Your task to perform on an android device: delete browsing data in the chrome app Image 0: 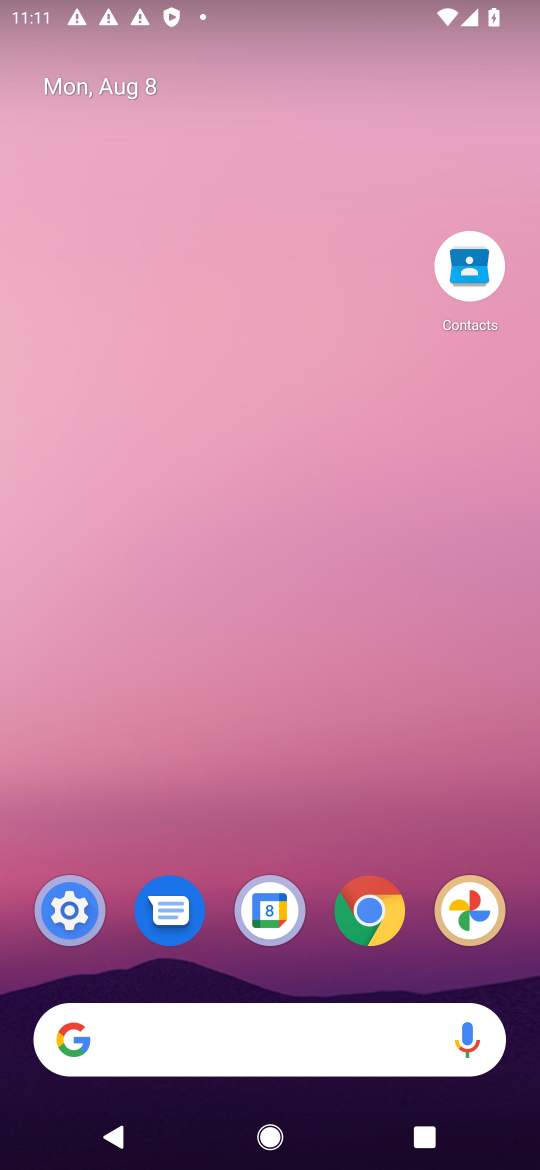
Step 0: click (373, 920)
Your task to perform on an android device: delete browsing data in the chrome app Image 1: 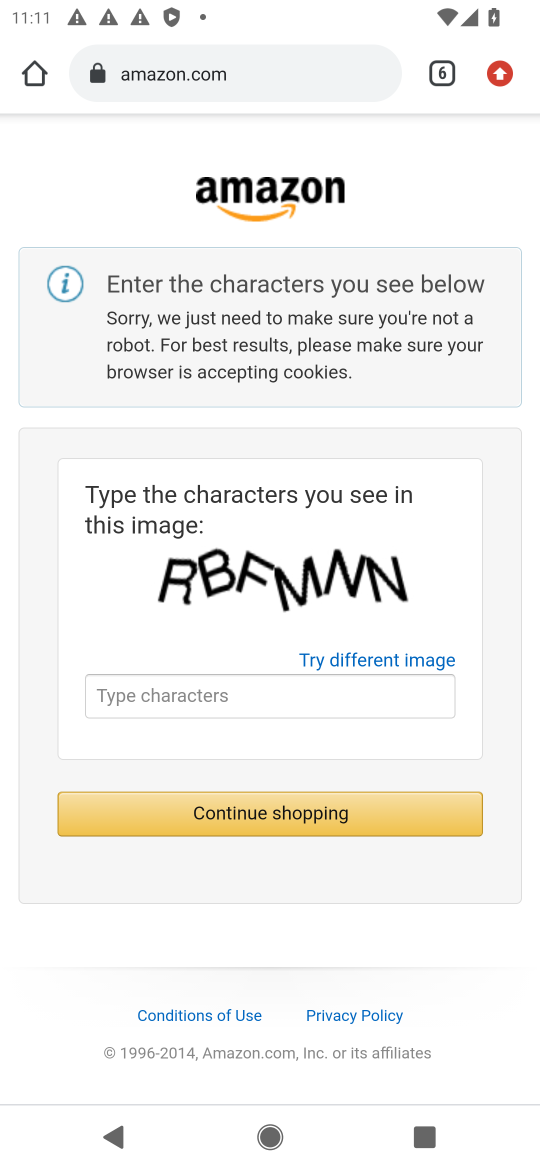
Step 1: drag from (527, 80) to (322, 967)
Your task to perform on an android device: delete browsing data in the chrome app Image 2: 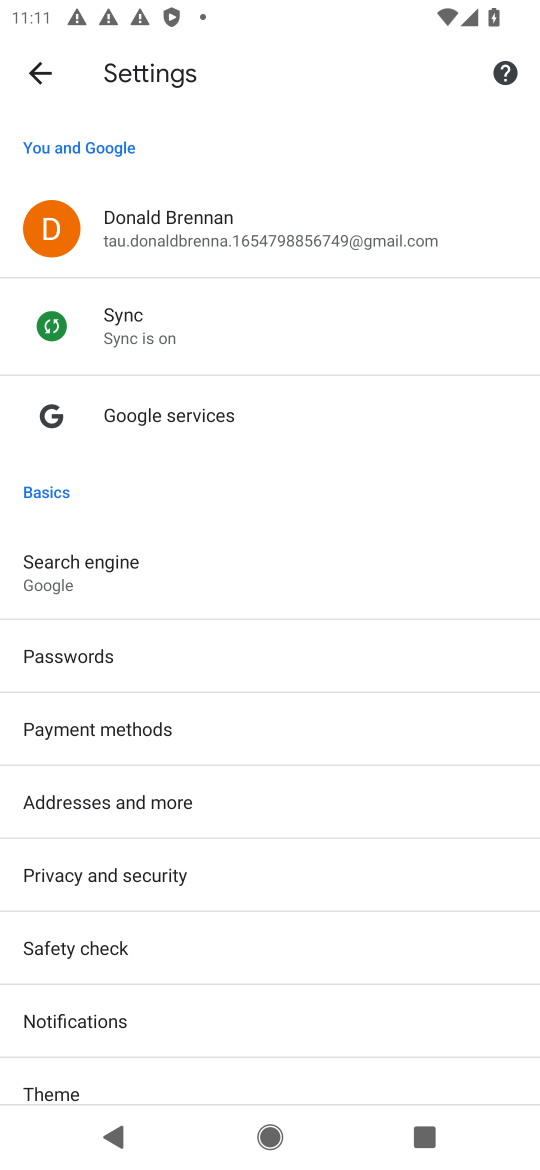
Step 2: drag from (104, 965) to (149, 560)
Your task to perform on an android device: delete browsing data in the chrome app Image 3: 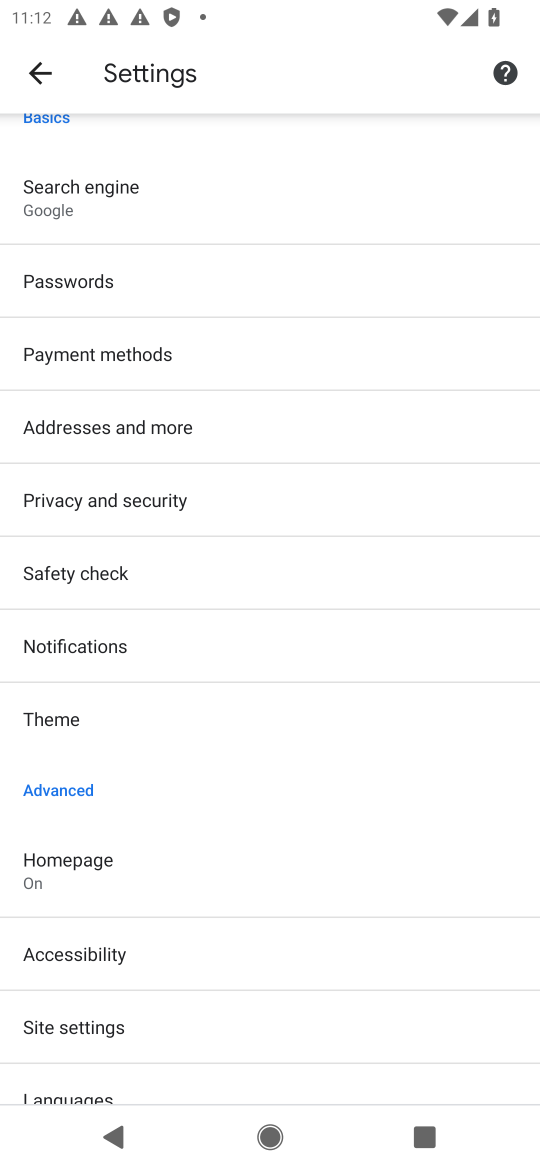
Step 3: click (144, 504)
Your task to perform on an android device: delete browsing data in the chrome app Image 4: 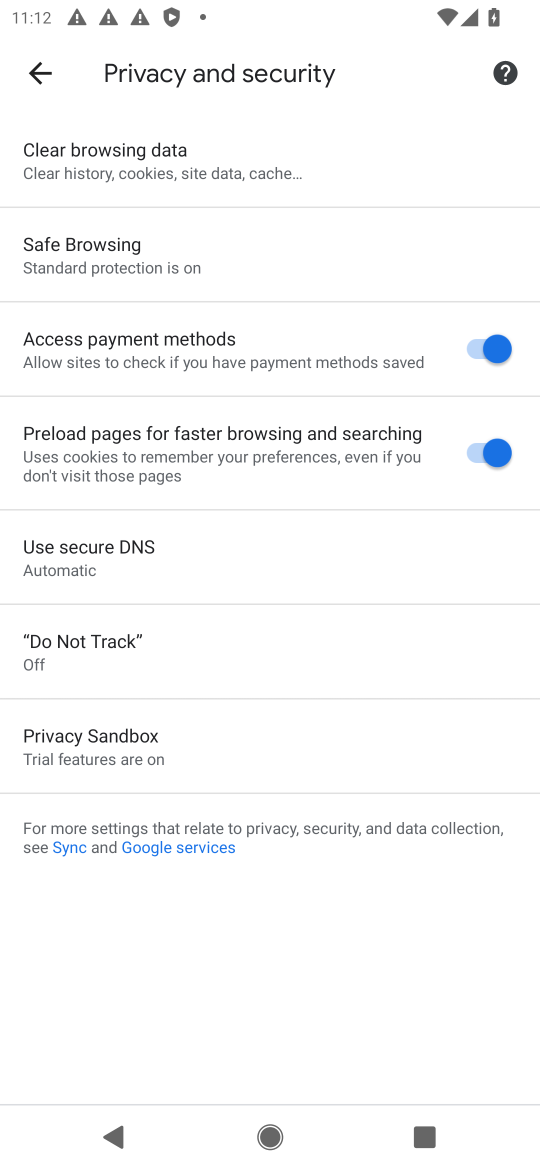
Step 4: click (112, 161)
Your task to perform on an android device: delete browsing data in the chrome app Image 5: 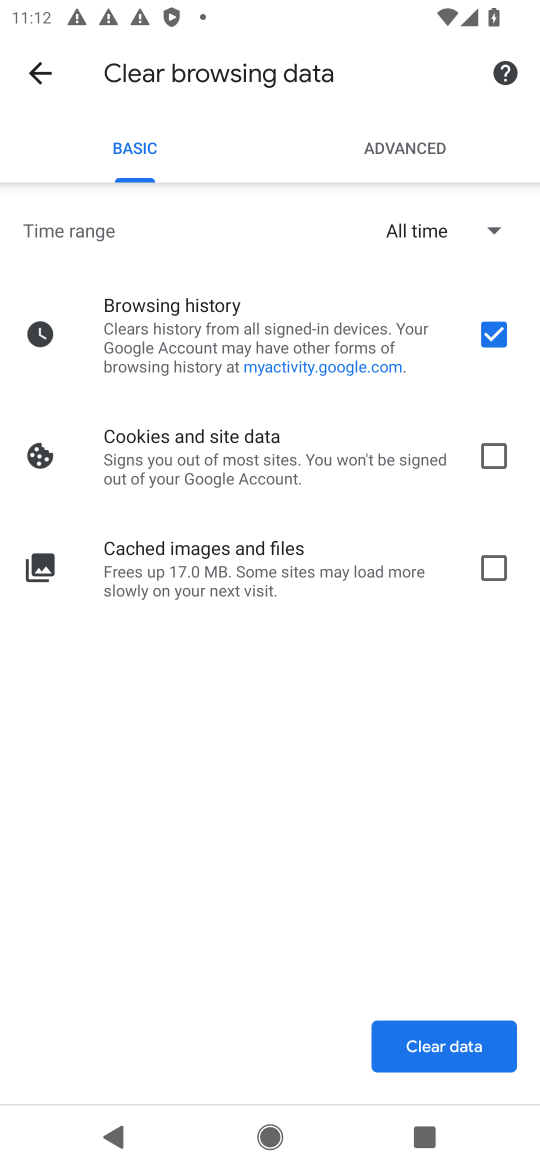
Step 5: click (488, 461)
Your task to perform on an android device: delete browsing data in the chrome app Image 6: 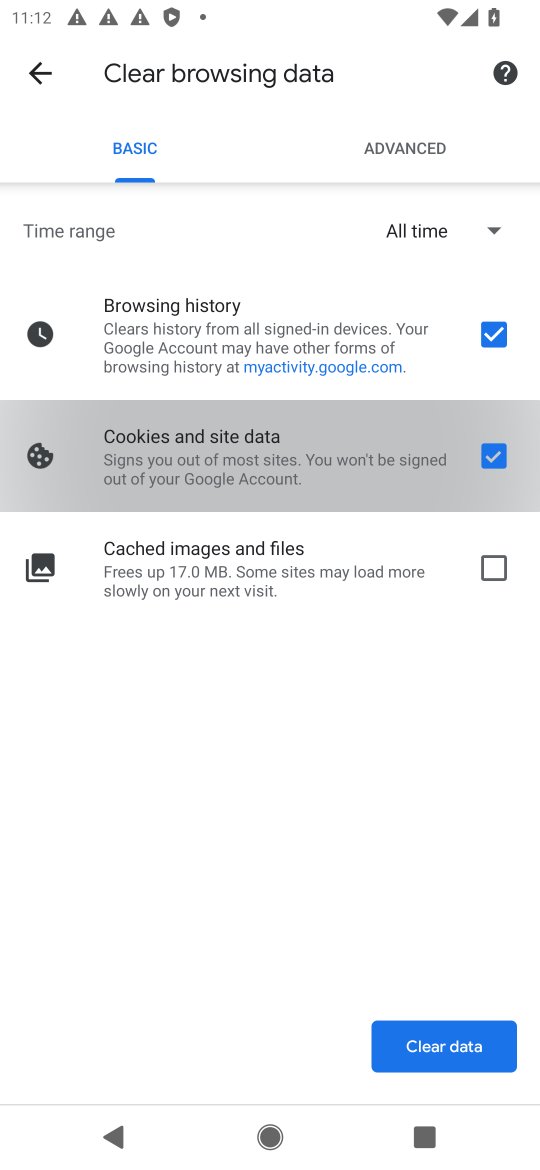
Step 6: click (481, 586)
Your task to perform on an android device: delete browsing data in the chrome app Image 7: 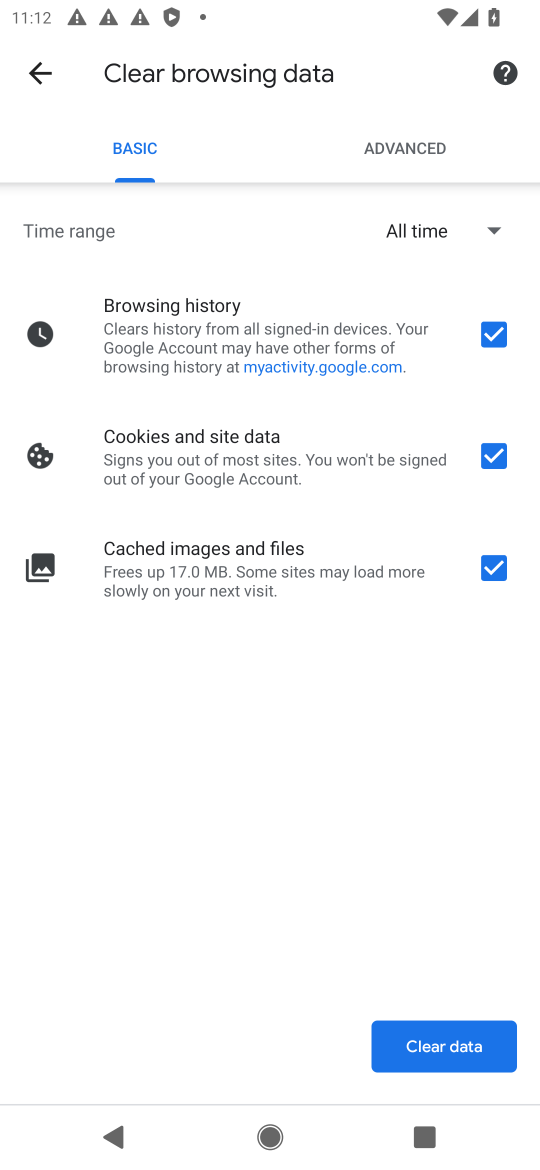
Step 7: click (469, 1029)
Your task to perform on an android device: delete browsing data in the chrome app Image 8: 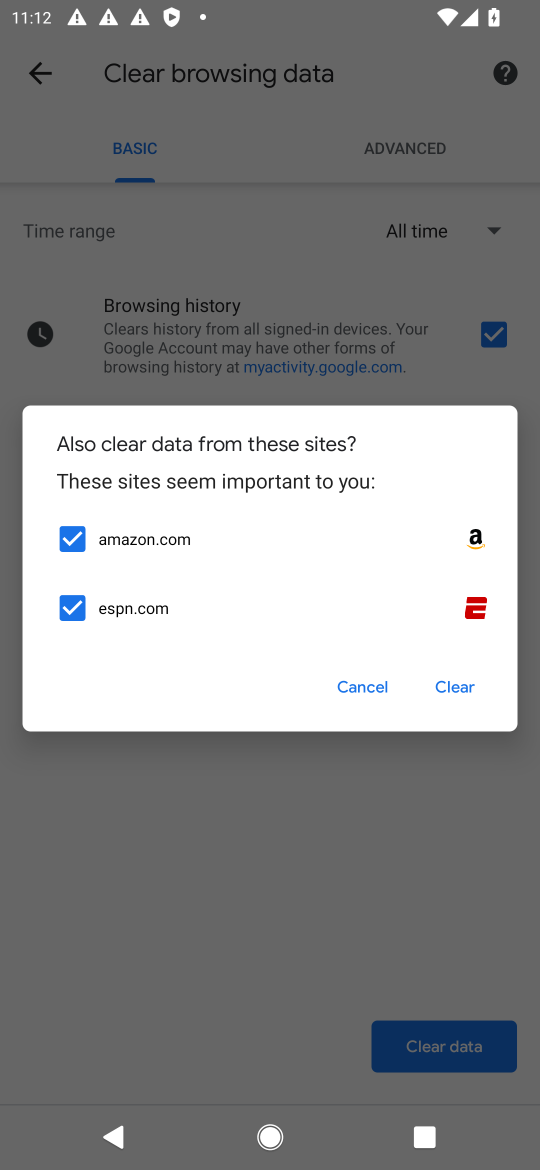
Step 8: click (463, 688)
Your task to perform on an android device: delete browsing data in the chrome app Image 9: 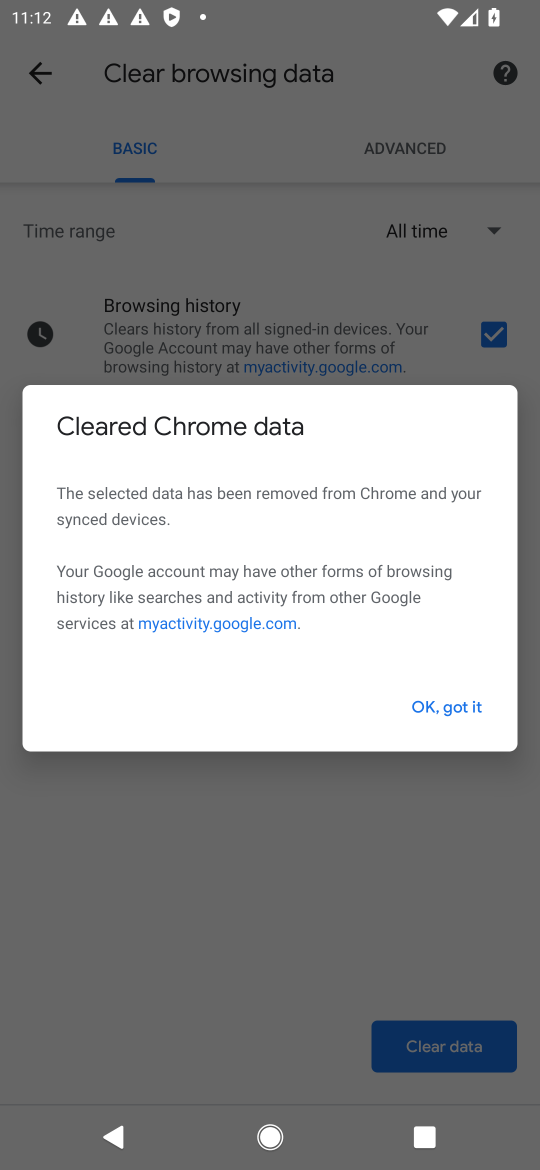
Step 9: task complete